Your task to perform on an android device: snooze an email in the gmail app Image 0: 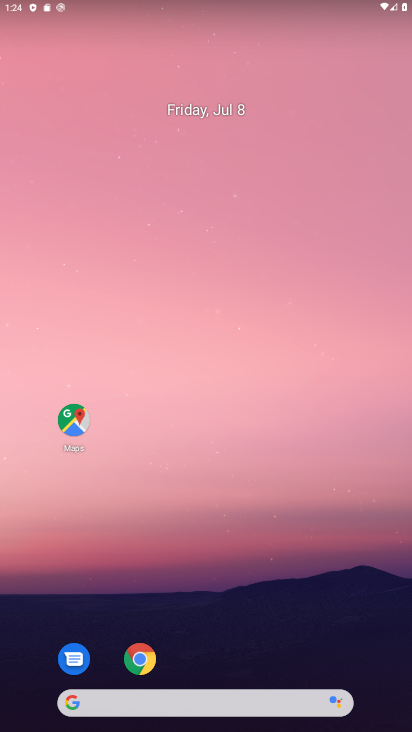
Step 0: drag from (263, 597) to (87, 0)
Your task to perform on an android device: snooze an email in the gmail app Image 1: 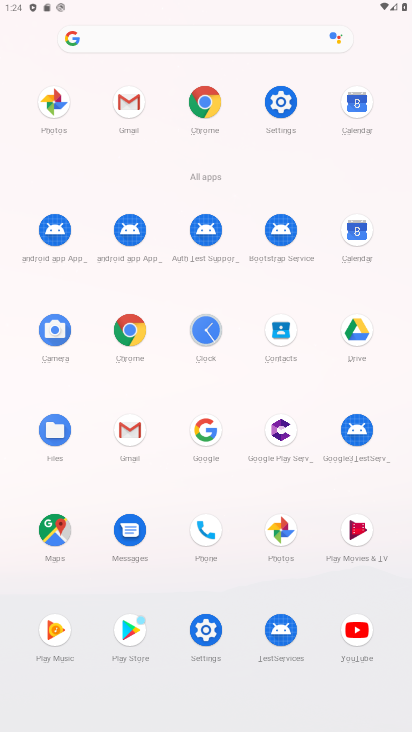
Step 1: click (129, 103)
Your task to perform on an android device: snooze an email in the gmail app Image 2: 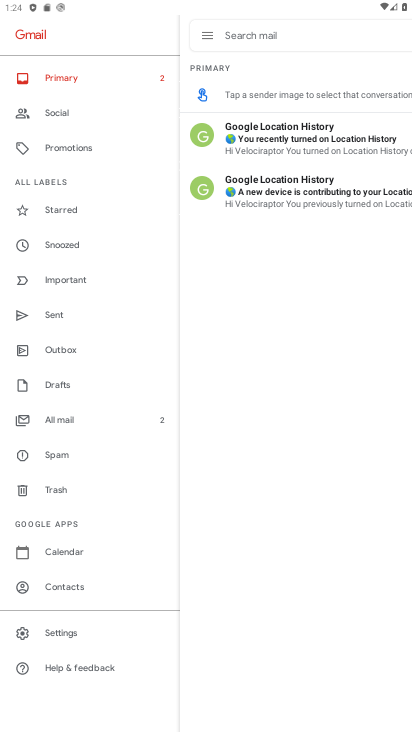
Step 2: click (239, 197)
Your task to perform on an android device: snooze an email in the gmail app Image 3: 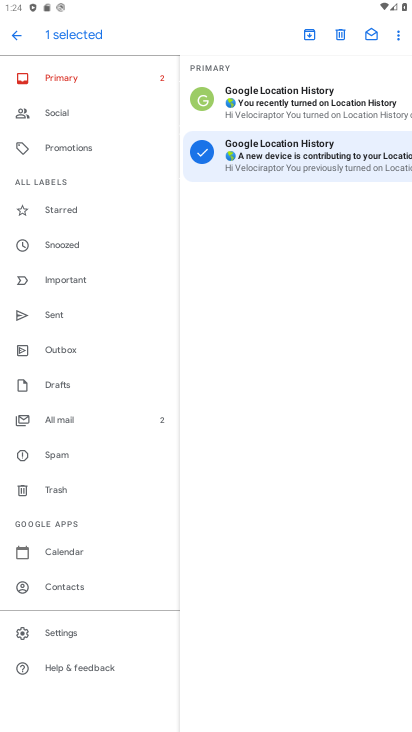
Step 3: click (393, 40)
Your task to perform on an android device: snooze an email in the gmail app Image 4: 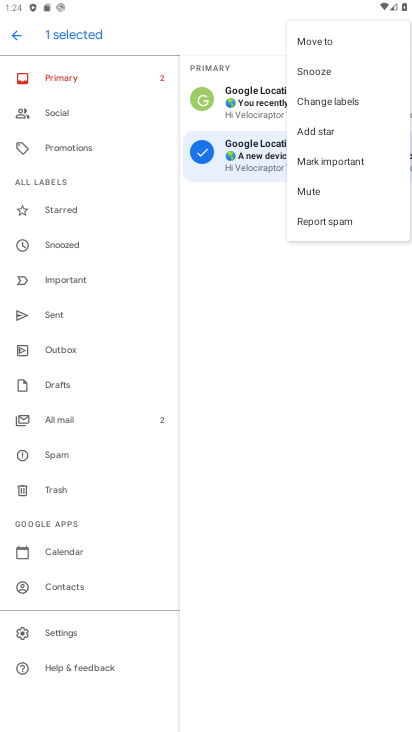
Step 4: click (323, 67)
Your task to perform on an android device: snooze an email in the gmail app Image 5: 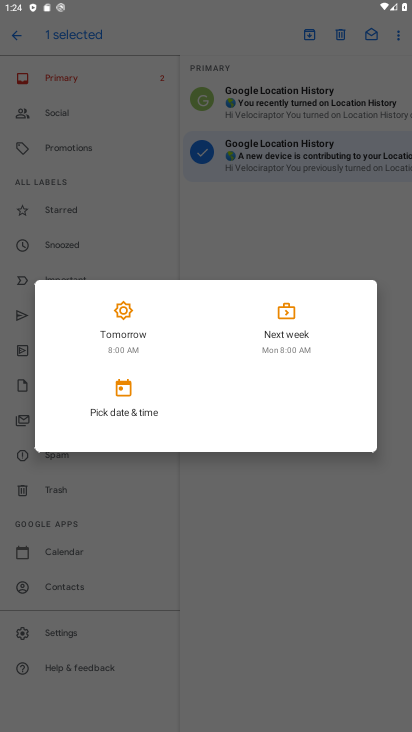
Step 5: click (284, 325)
Your task to perform on an android device: snooze an email in the gmail app Image 6: 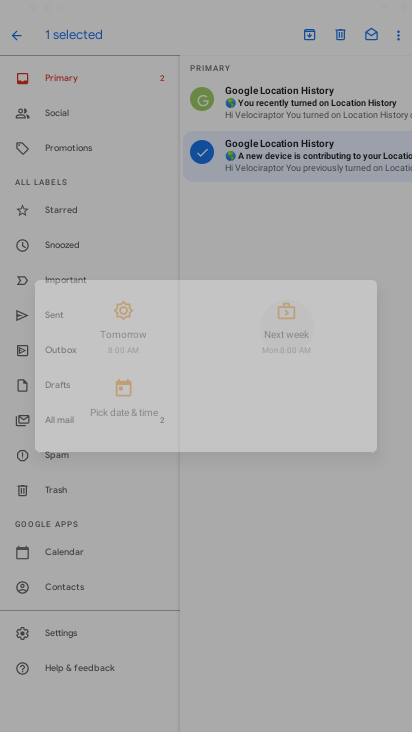
Step 6: click (284, 325)
Your task to perform on an android device: snooze an email in the gmail app Image 7: 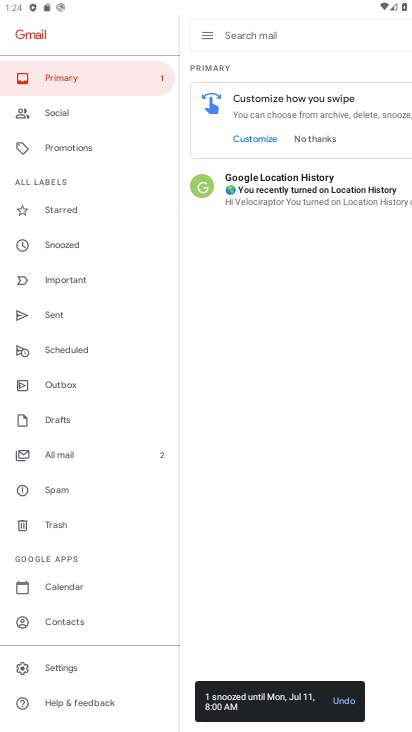
Step 7: task complete